Your task to perform on an android device: open sync settings in chrome Image 0: 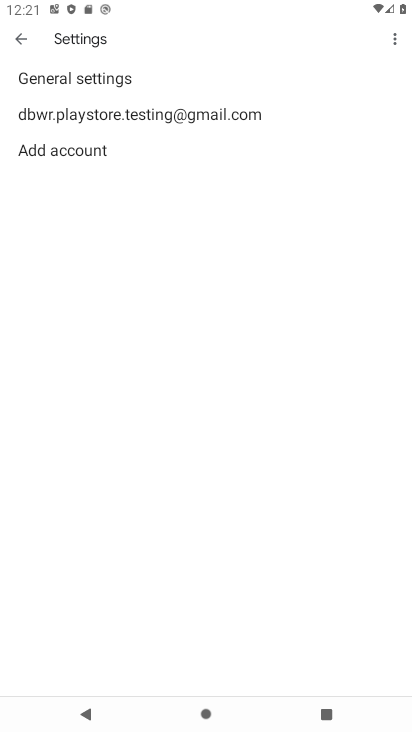
Step 0: press home button
Your task to perform on an android device: open sync settings in chrome Image 1: 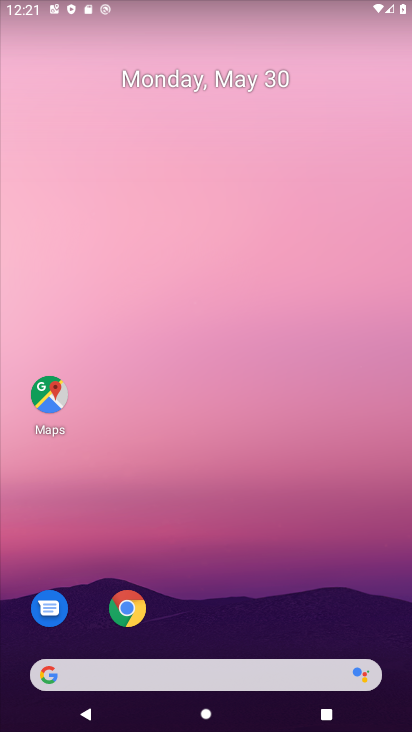
Step 1: click (132, 604)
Your task to perform on an android device: open sync settings in chrome Image 2: 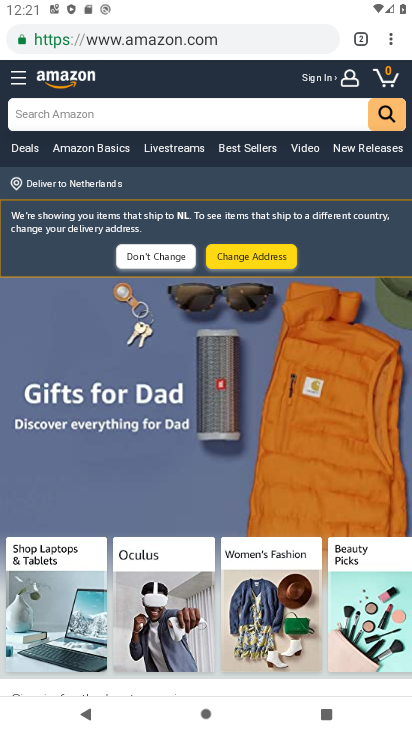
Step 2: click (393, 35)
Your task to perform on an android device: open sync settings in chrome Image 3: 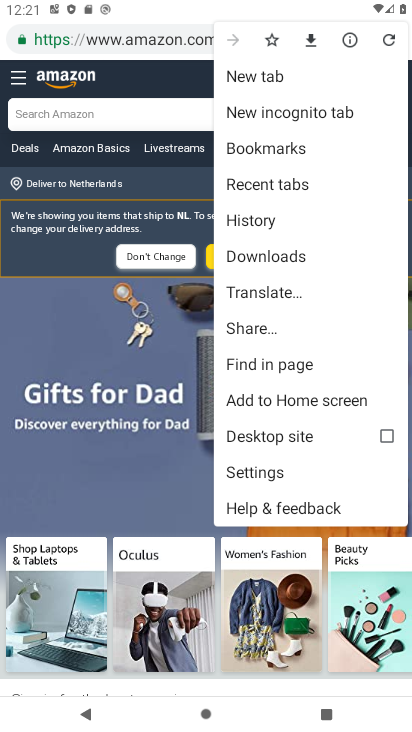
Step 3: click (263, 471)
Your task to perform on an android device: open sync settings in chrome Image 4: 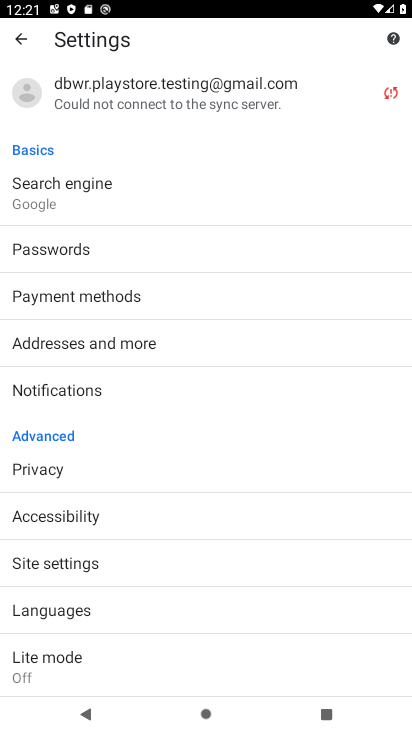
Step 4: click (149, 97)
Your task to perform on an android device: open sync settings in chrome Image 5: 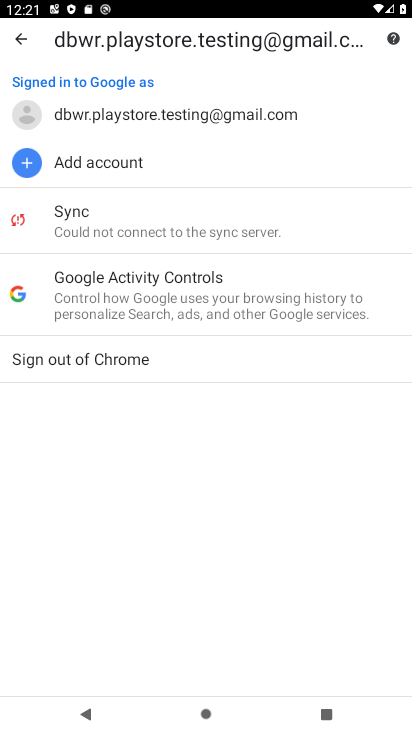
Step 5: click (235, 236)
Your task to perform on an android device: open sync settings in chrome Image 6: 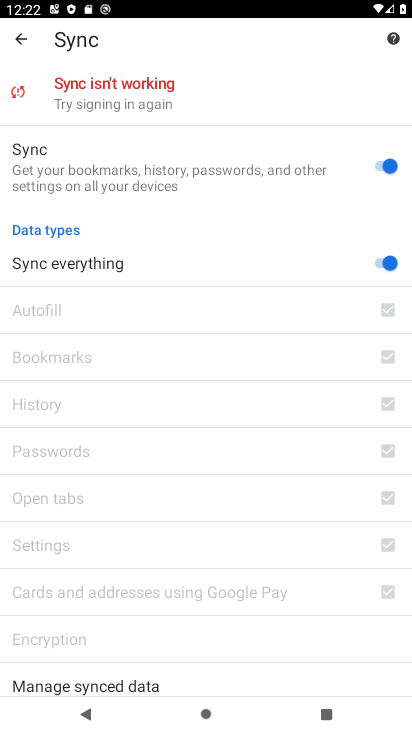
Step 6: task complete